Your task to perform on an android device: Go to calendar. Show me events next week Image 0: 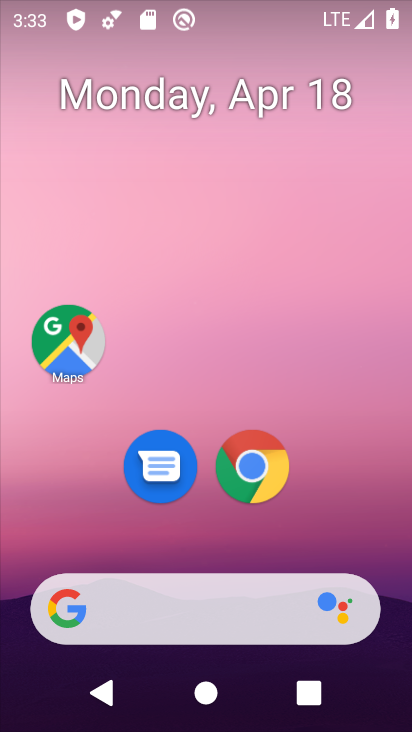
Step 0: drag from (325, 525) to (270, 126)
Your task to perform on an android device: Go to calendar. Show me events next week Image 1: 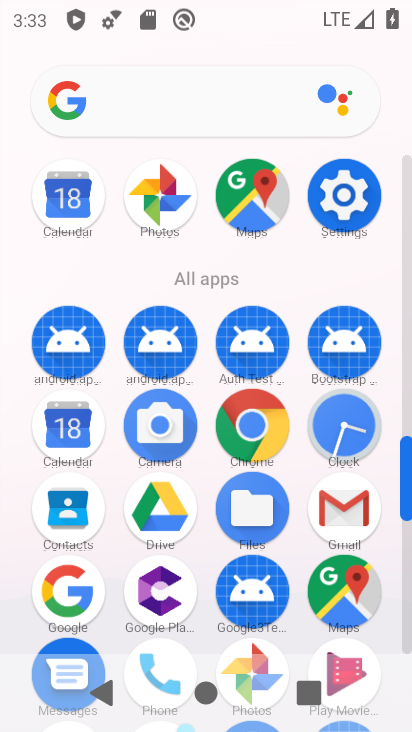
Step 1: click (78, 218)
Your task to perform on an android device: Go to calendar. Show me events next week Image 2: 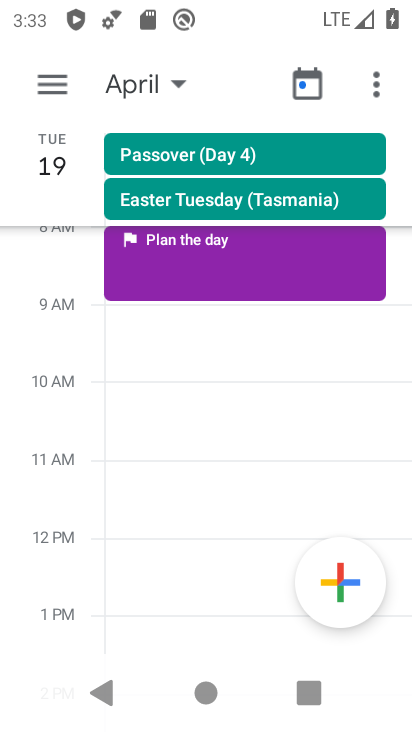
Step 2: click (165, 83)
Your task to perform on an android device: Go to calendar. Show me events next week Image 3: 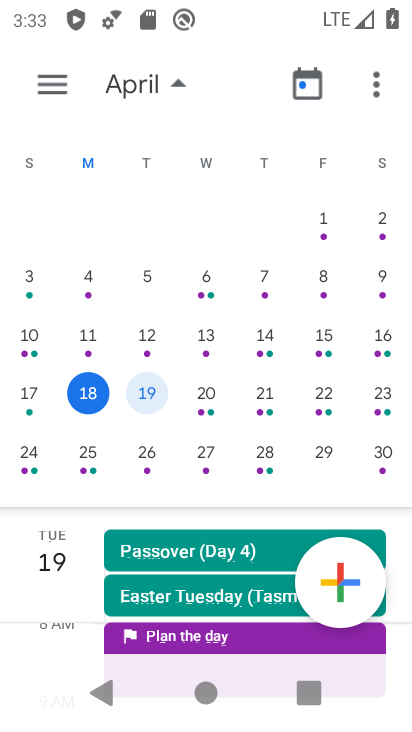
Step 3: click (151, 452)
Your task to perform on an android device: Go to calendar. Show me events next week Image 4: 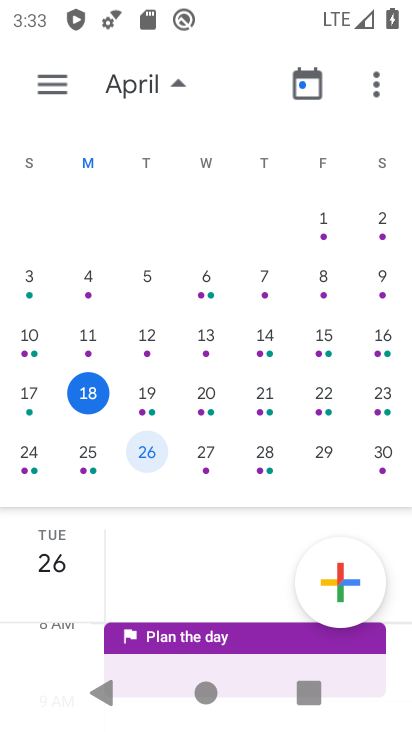
Step 4: task complete